Your task to perform on an android device: open wifi settings Image 0: 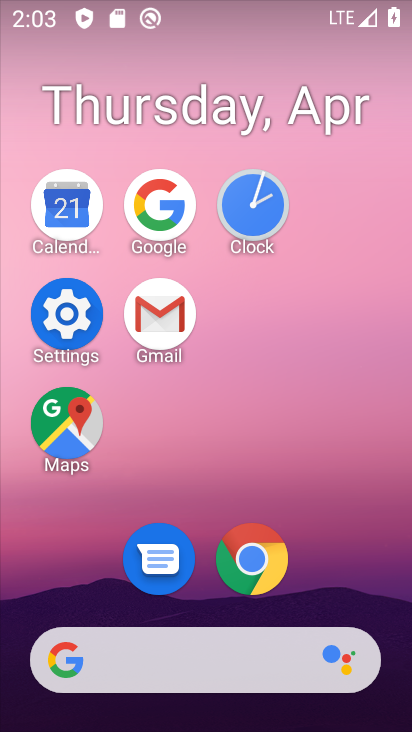
Step 0: click (70, 318)
Your task to perform on an android device: open wifi settings Image 1: 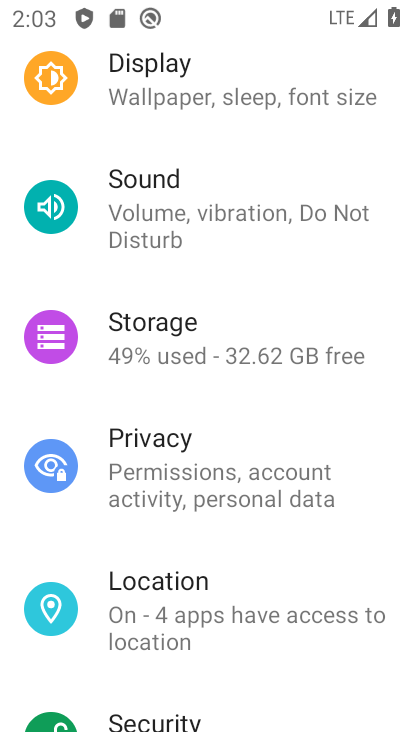
Step 1: drag from (270, 202) to (291, 618)
Your task to perform on an android device: open wifi settings Image 2: 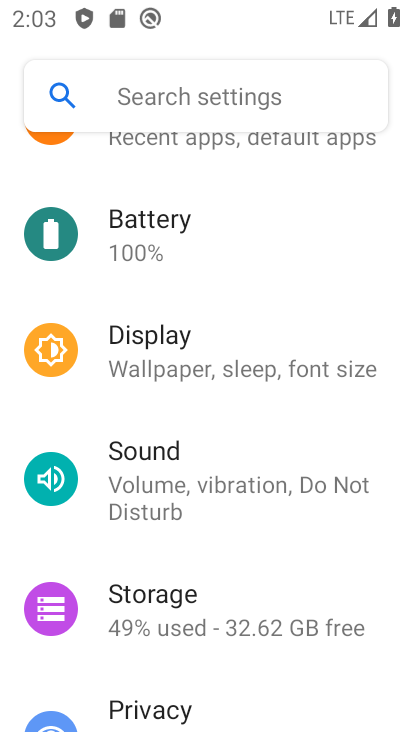
Step 2: drag from (263, 262) to (259, 667)
Your task to perform on an android device: open wifi settings Image 3: 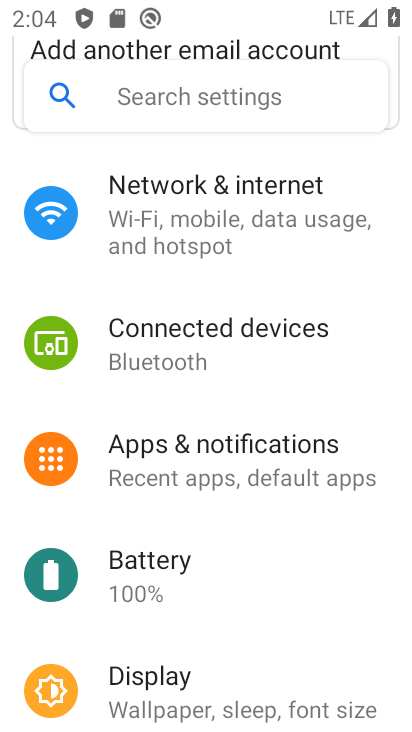
Step 3: click (177, 206)
Your task to perform on an android device: open wifi settings Image 4: 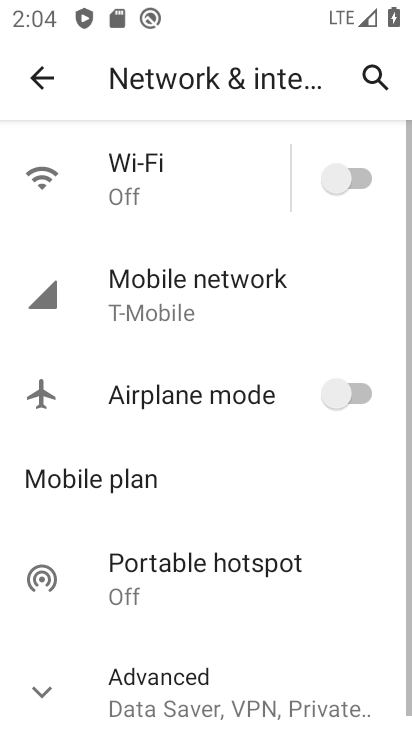
Step 4: click (177, 206)
Your task to perform on an android device: open wifi settings Image 5: 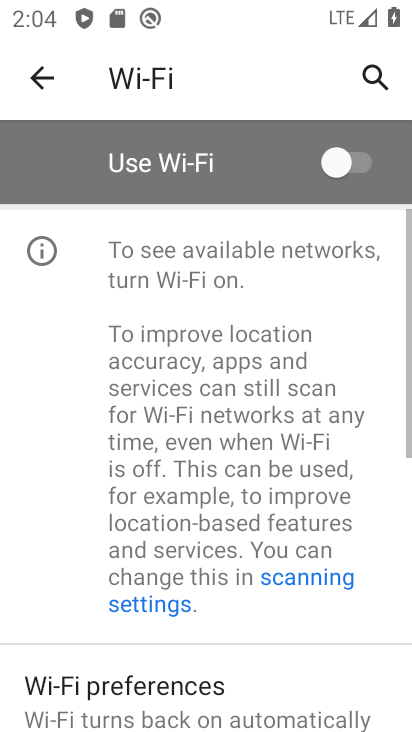
Step 5: click (341, 168)
Your task to perform on an android device: open wifi settings Image 6: 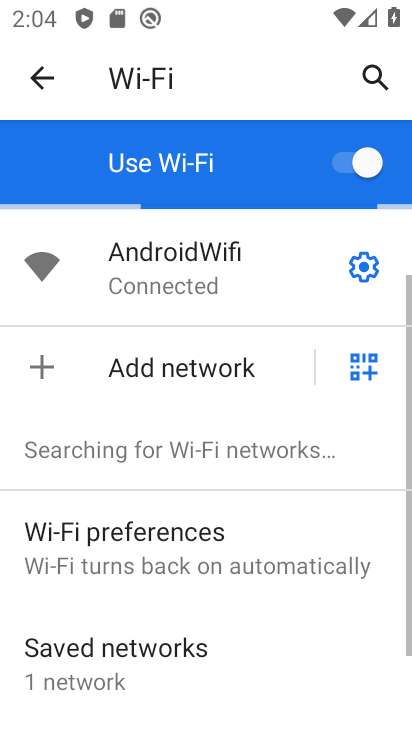
Step 6: click (360, 265)
Your task to perform on an android device: open wifi settings Image 7: 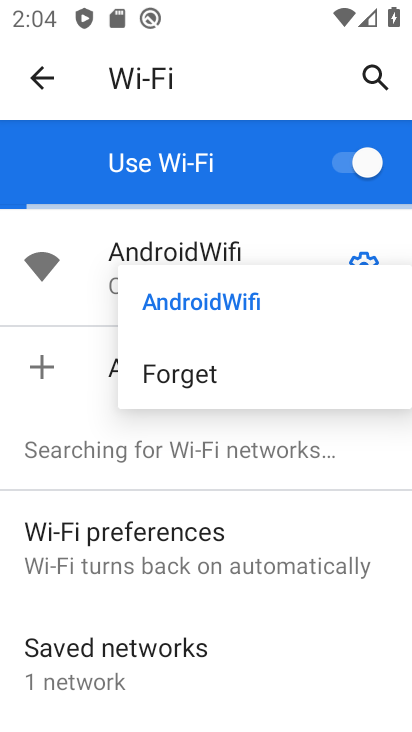
Step 7: click (372, 256)
Your task to perform on an android device: open wifi settings Image 8: 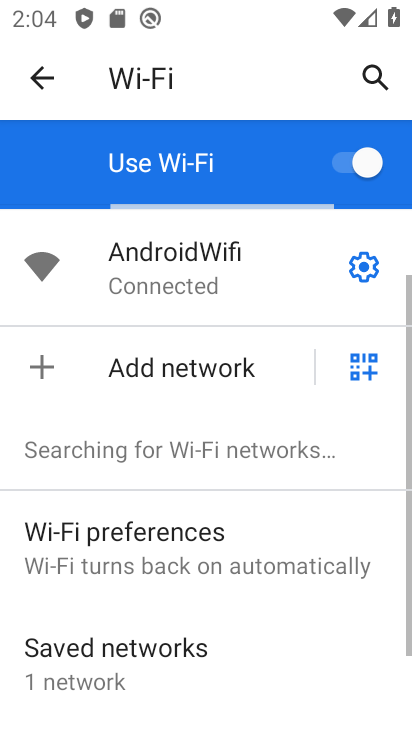
Step 8: click (360, 271)
Your task to perform on an android device: open wifi settings Image 9: 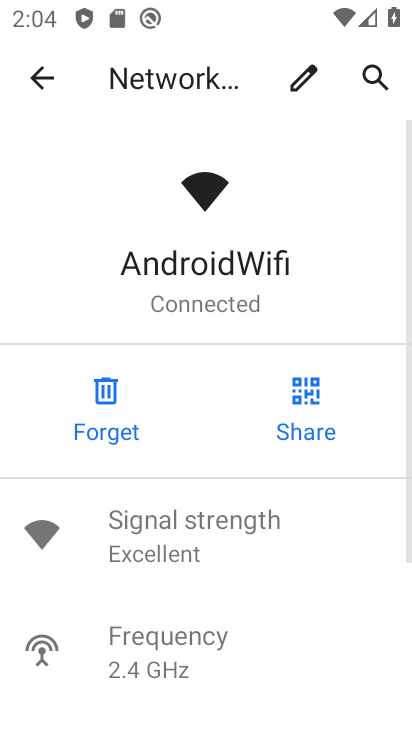
Step 9: task complete